Your task to perform on an android device: Open calendar and show me the first week of next month Image 0: 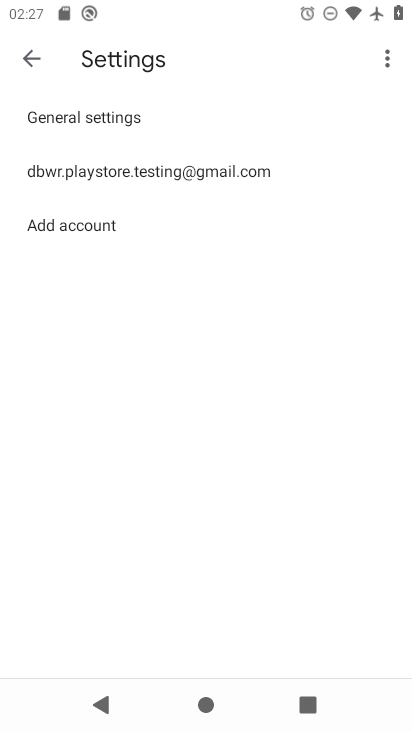
Step 0: press home button
Your task to perform on an android device: Open calendar and show me the first week of next month Image 1: 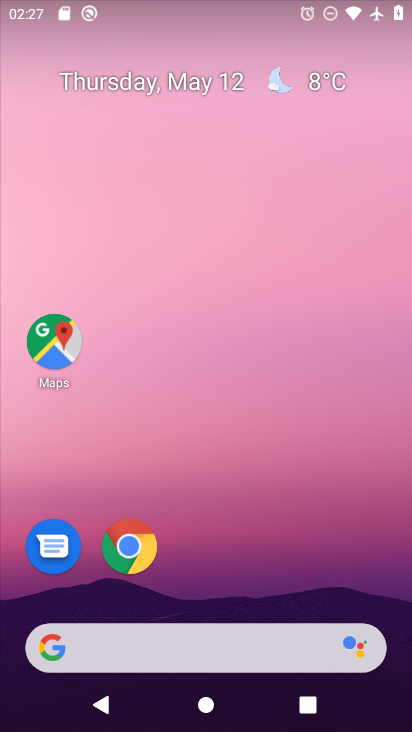
Step 1: drag from (141, 650) to (287, 287)
Your task to perform on an android device: Open calendar and show me the first week of next month Image 2: 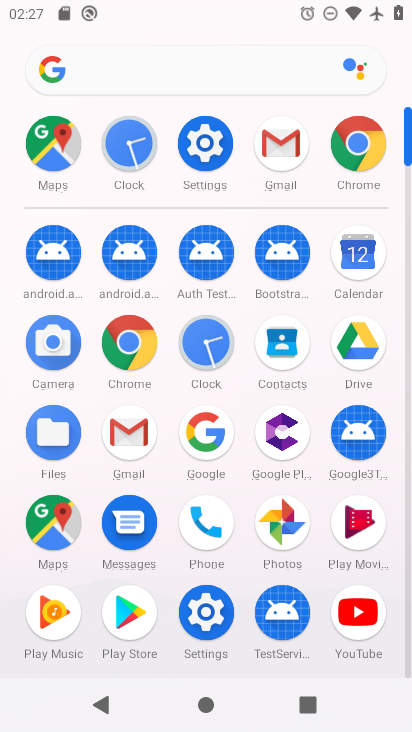
Step 2: click (361, 266)
Your task to perform on an android device: Open calendar and show me the first week of next month Image 3: 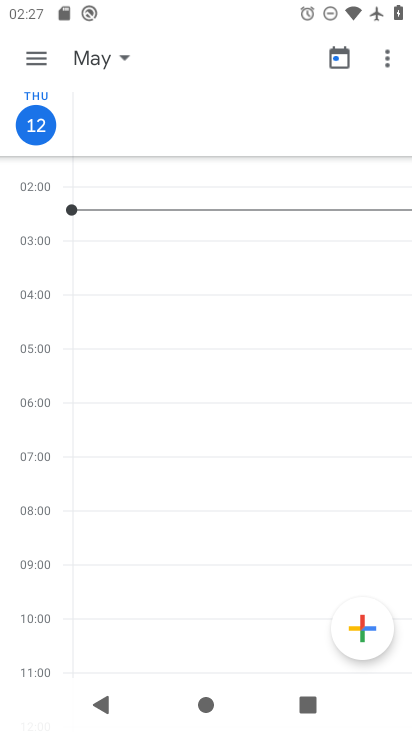
Step 3: click (97, 62)
Your task to perform on an android device: Open calendar and show me the first week of next month Image 4: 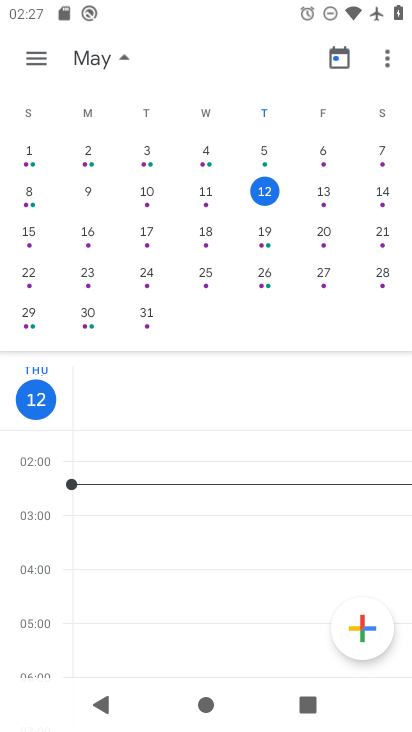
Step 4: drag from (335, 263) to (43, 300)
Your task to perform on an android device: Open calendar and show me the first week of next month Image 5: 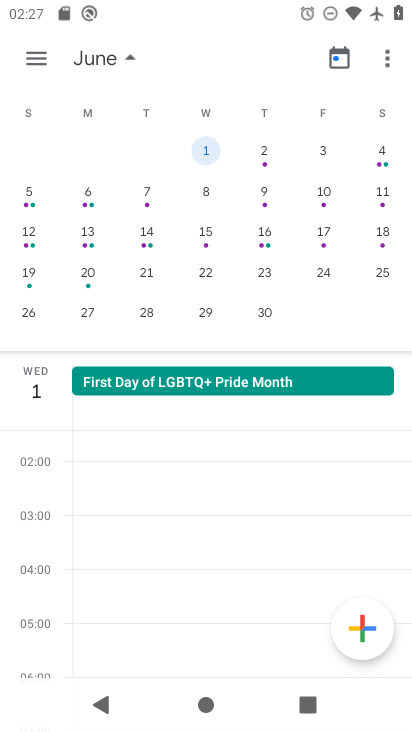
Step 5: click (208, 153)
Your task to perform on an android device: Open calendar and show me the first week of next month Image 6: 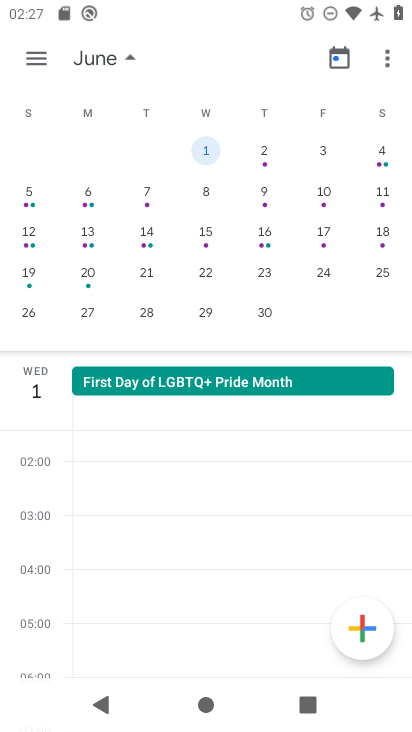
Step 6: click (35, 55)
Your task to perform on an android device: Open calendar and show me the first week of next month Image 7: 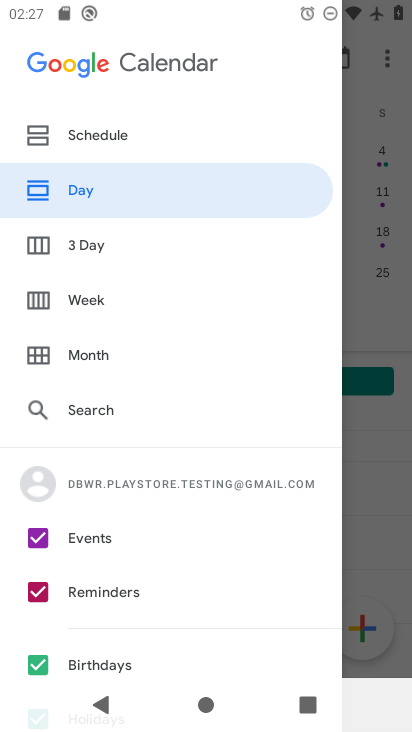
Step 7: click (69, 305)
Your task to perform on an android device: Open calendar and show me the first week of next month Image 8: 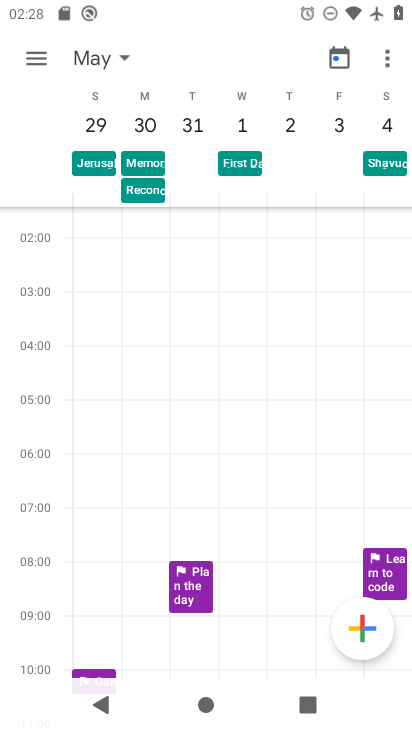
Step 8: task complete